Your task to perform on an android device: toggle data saver in the chrome app Image 0: 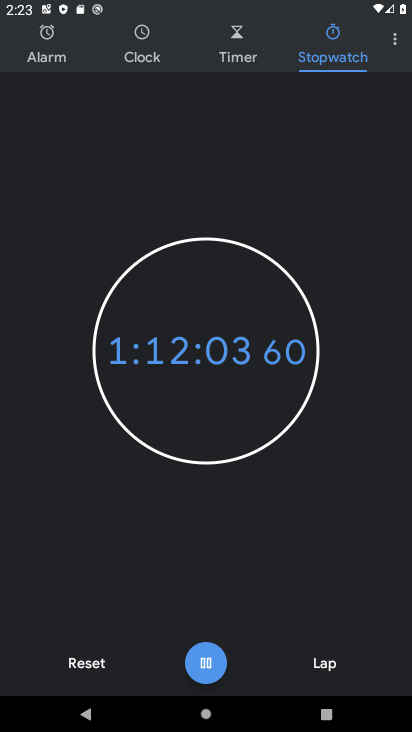
Step 0: press home button
Your task to perform on an android device: toggle data saver in the chrome app Image 1: 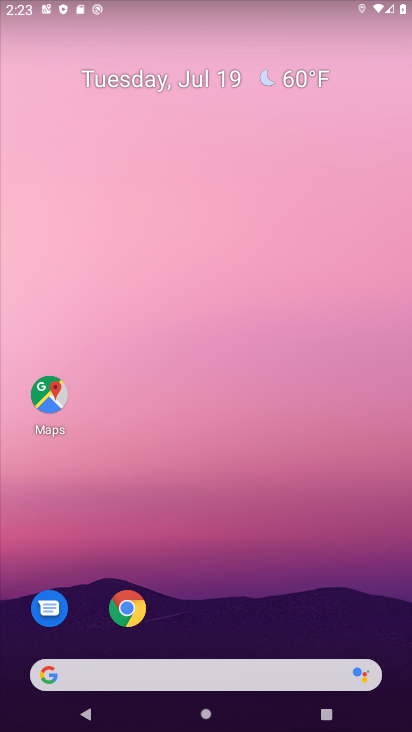
Step 1: drag from (266, 589) to (199, 35)
Your task to perform on an android device: toggle data saver in the chrome app Image 2: 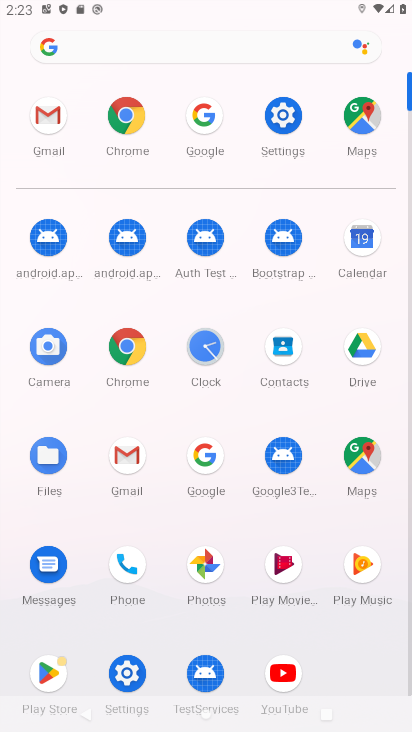
Step 2: click (146, 125)
Your task to perform on an android device: toggle data saver in the chrome app Image 3: 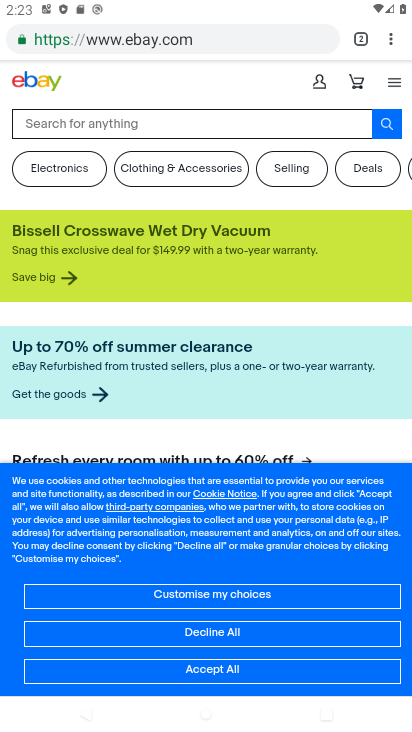
Step 3: drag from (390, 42) to (260, 478)
Your task to perform on an android device: toggle data saver in the chrome app Image 4: 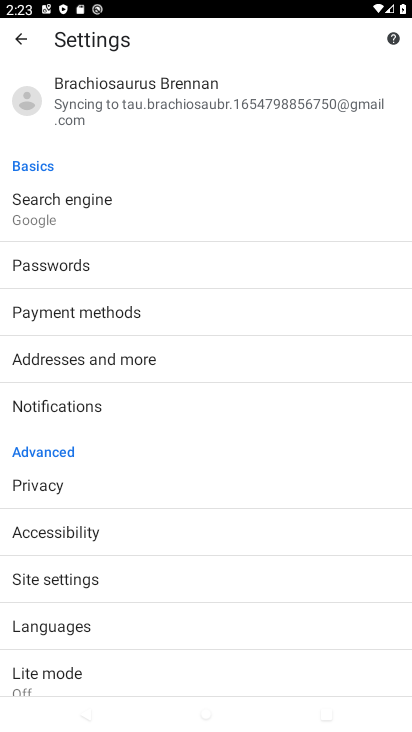
Step 4: drag from (93, 628) to (144, 223)
Your task to perform on an android device: toggle data saver in the chrome app Image 5: 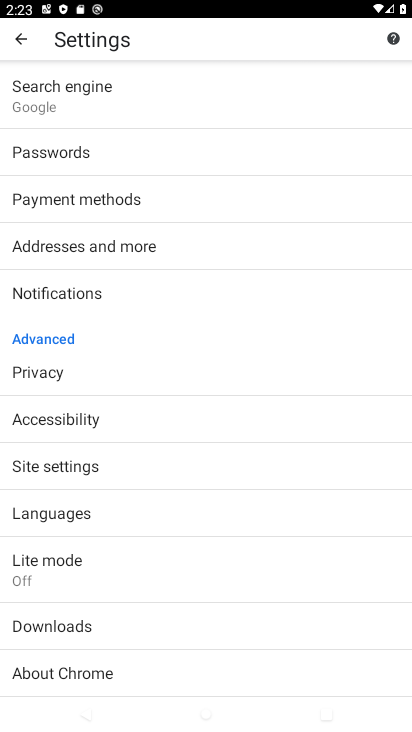
Step 5: click (51, 577)
Your task to perform on an android device: toggle data saver in the chrome app Image 6: 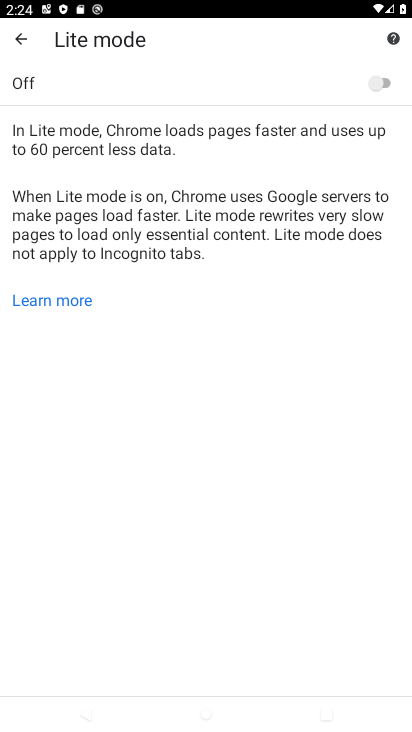
Step 6: click (384, 90)
Your task to perform on an android device: toggle data saver in the chrome app Image 7: 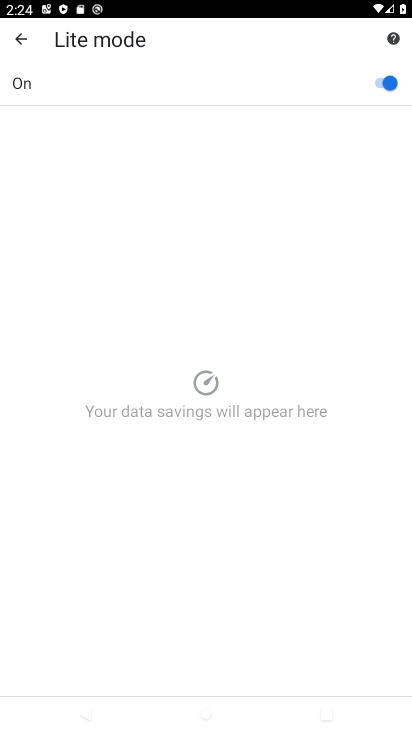
Step 7: task complete